Your task to perform on an android device: turn on wifi Image 0: 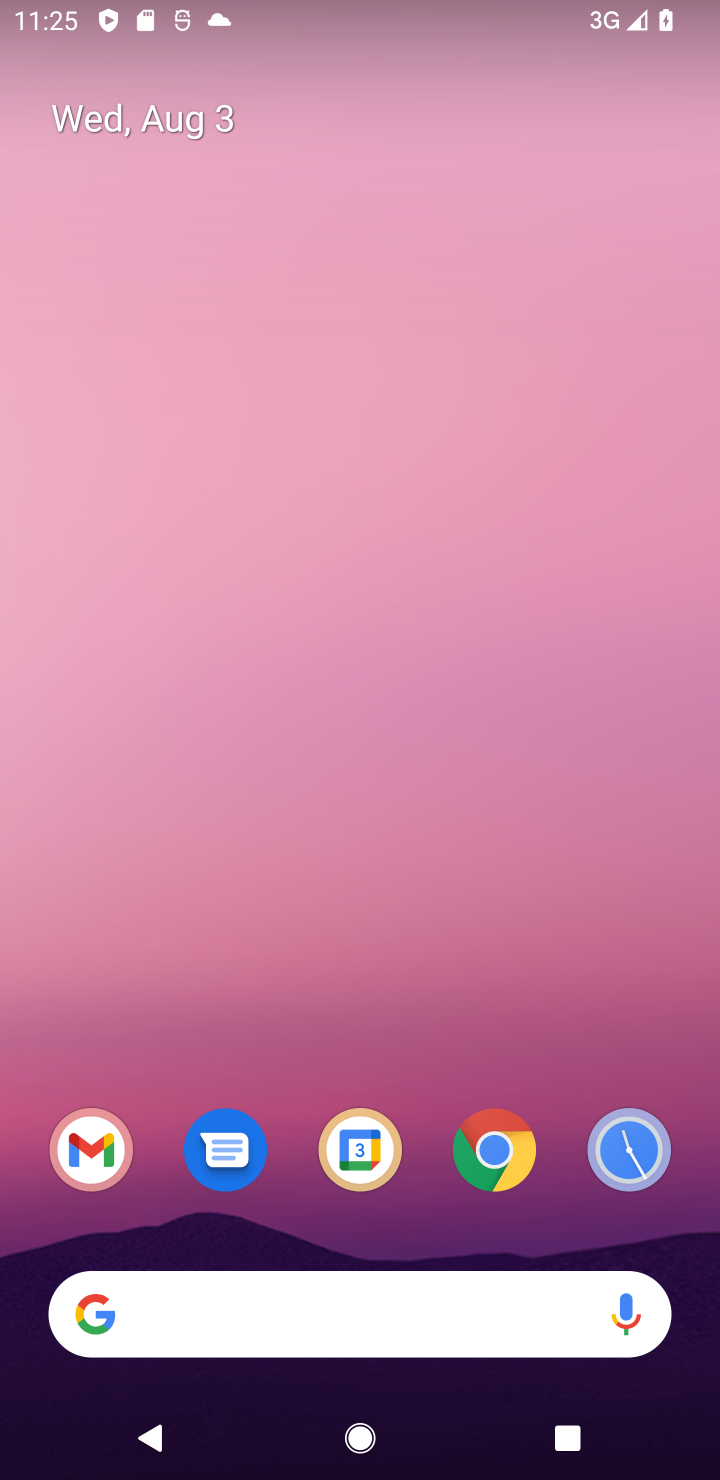
Step 0: press home button
Your task to perform on an android device: turn on wifi Image 1: 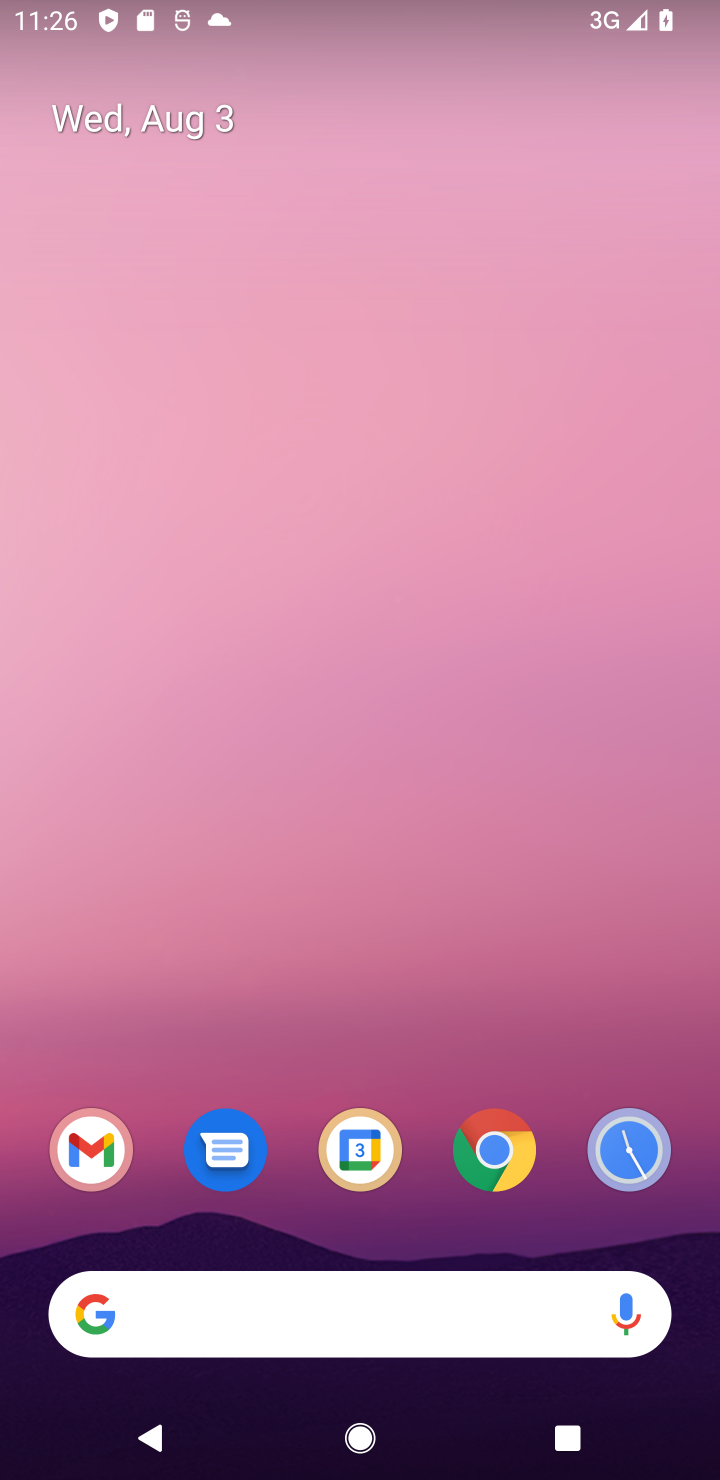
Step 1: drag from (550, 1101) to (563, 235)
Your task to perform on an android device: turn on wifi Image 2: 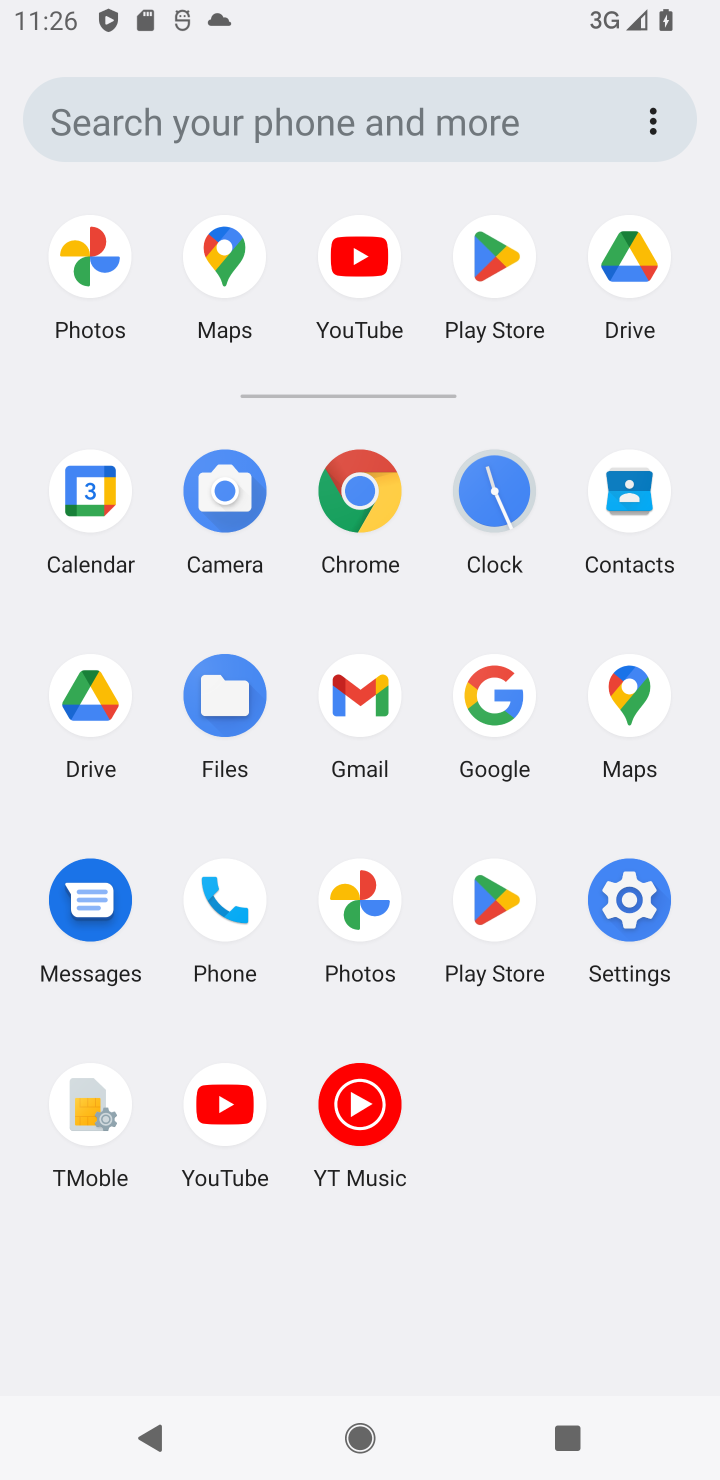
Step 2: click (631, 897)
Your task to perform on an android device: turn on wifi Image 3: 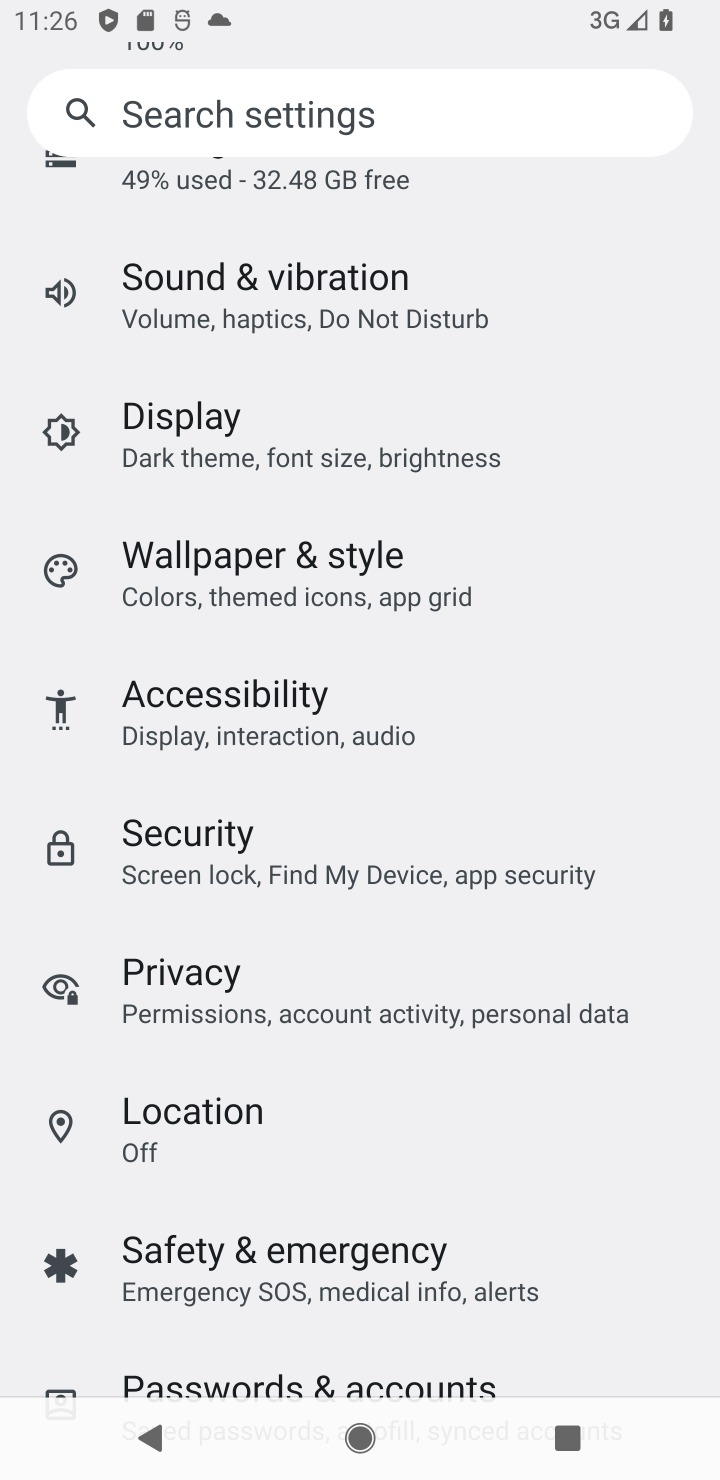
Step 3: drag from (498, 1175) to (523, 844)
Your task to perform on an android device: turn on wifi Image 4: 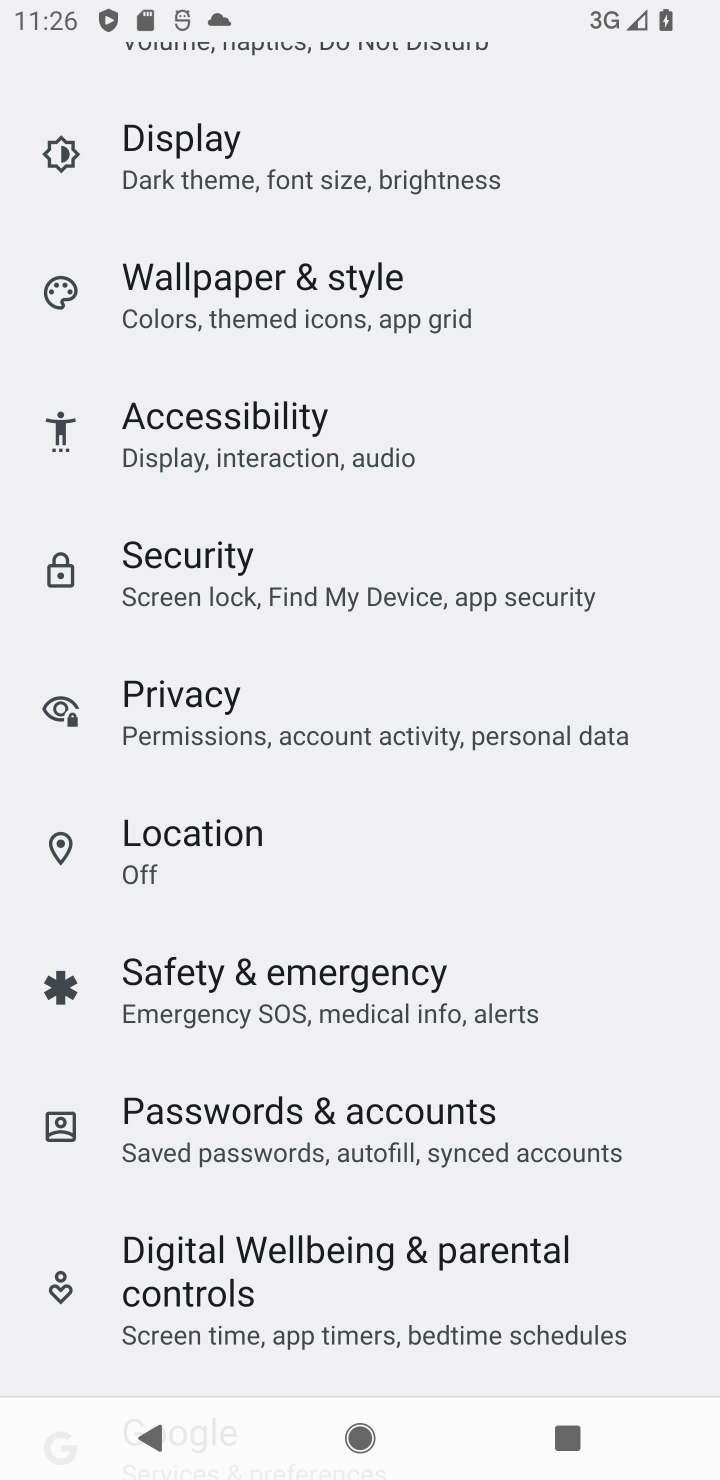
Step 4: drag from (594, 1177) to (603, 784)
Your task to perform on an android device: turn on wifi Image 5: 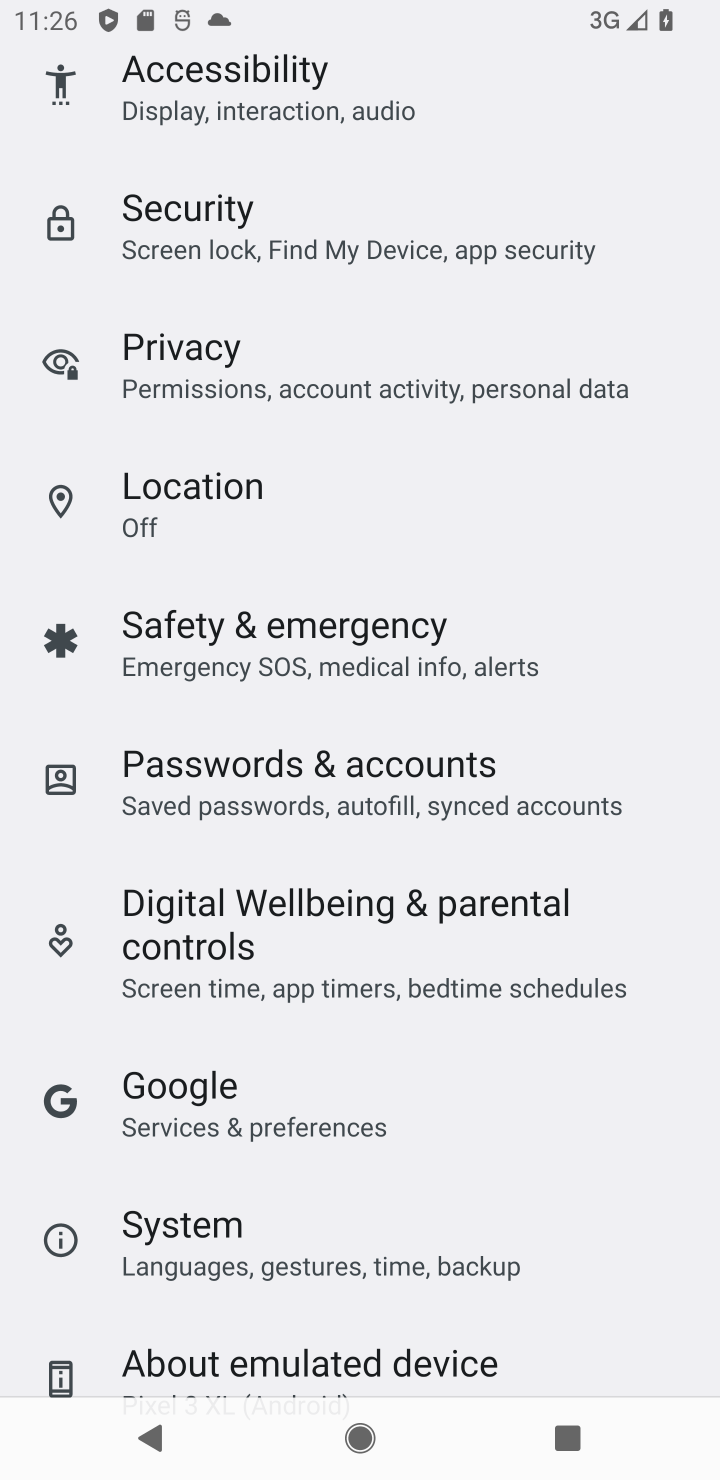
Step 5: drag from (634, 1117) to (615, 825)
Your task to perform on an android device: turn on wifi Image 6: 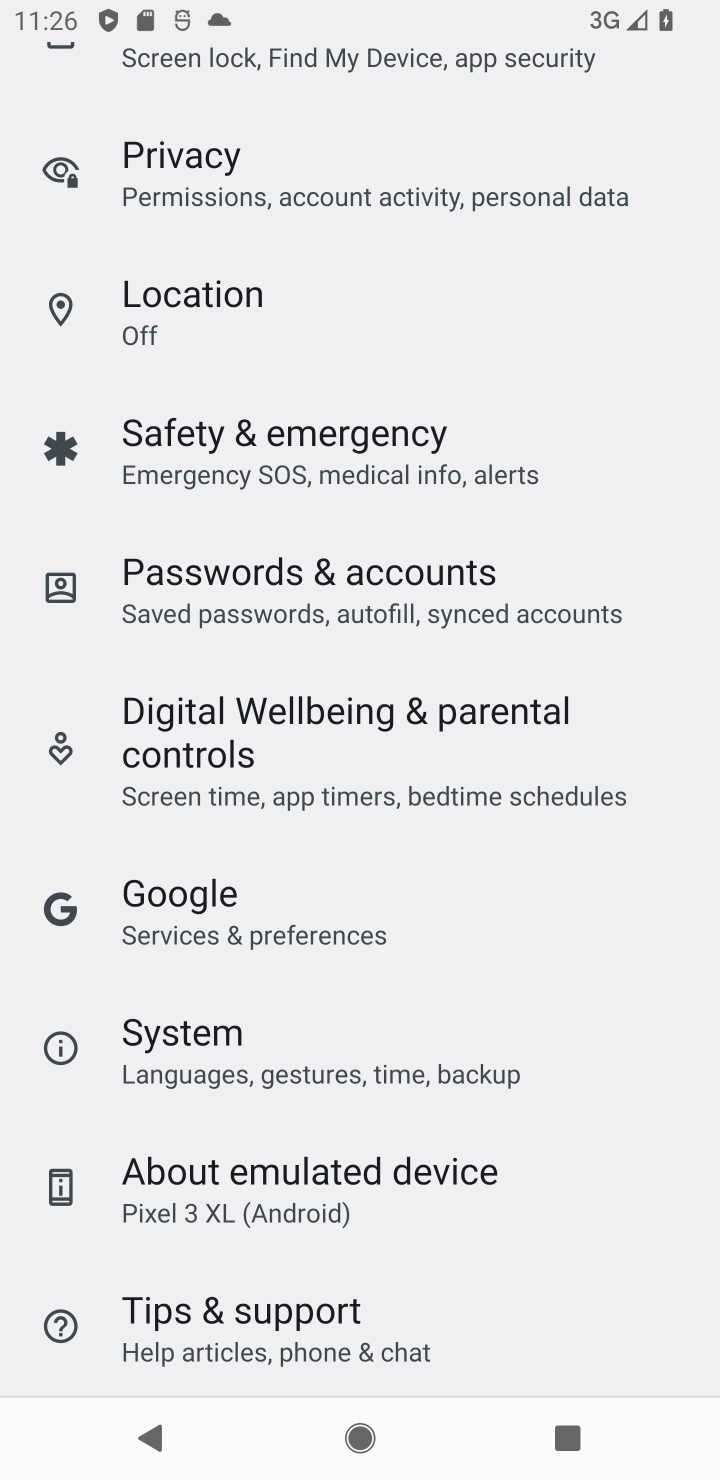
Step 6: drag from (657, 545) to (659, 879)
Your task to perform on an android device: turn on wifi Image 7: 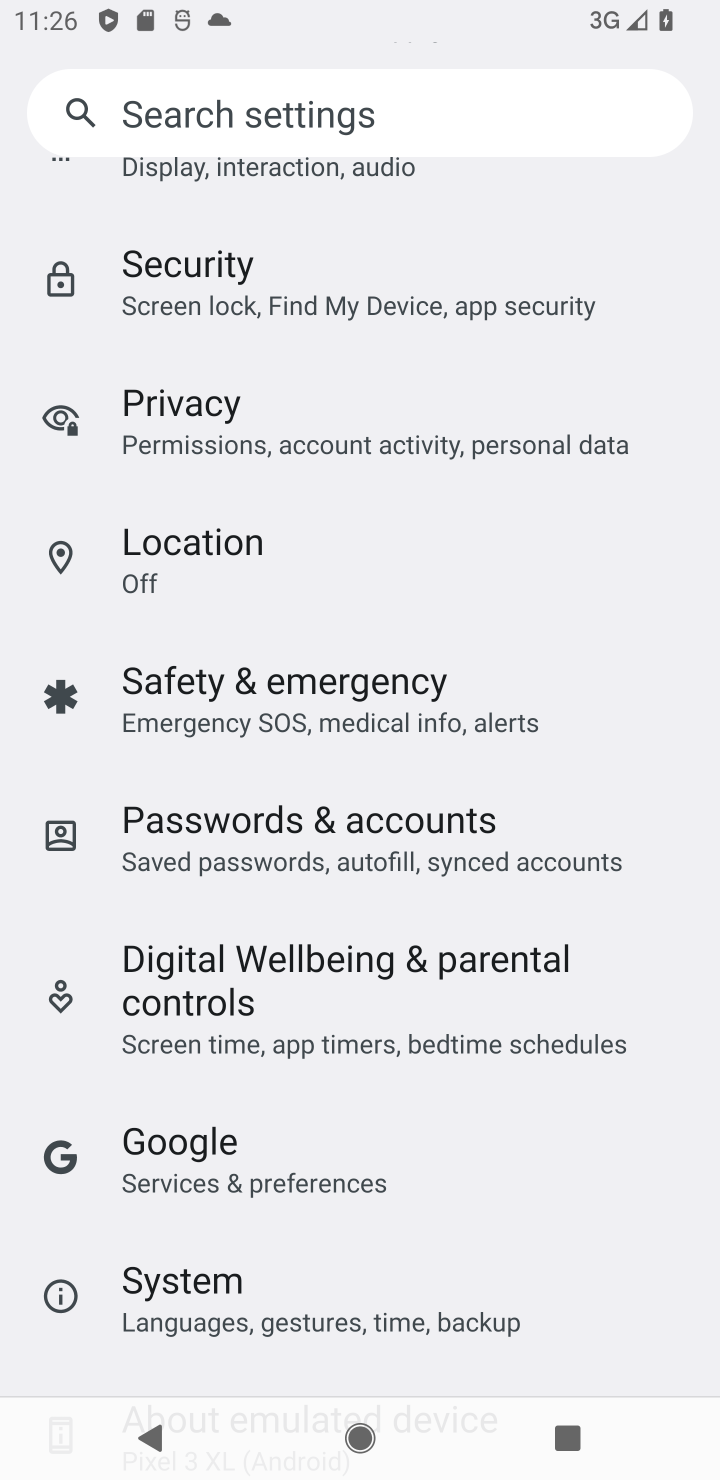
Step 7: drag from (640, 532) to (640, 868)
Your task to perform on an android device: turn on wifi Image 8: 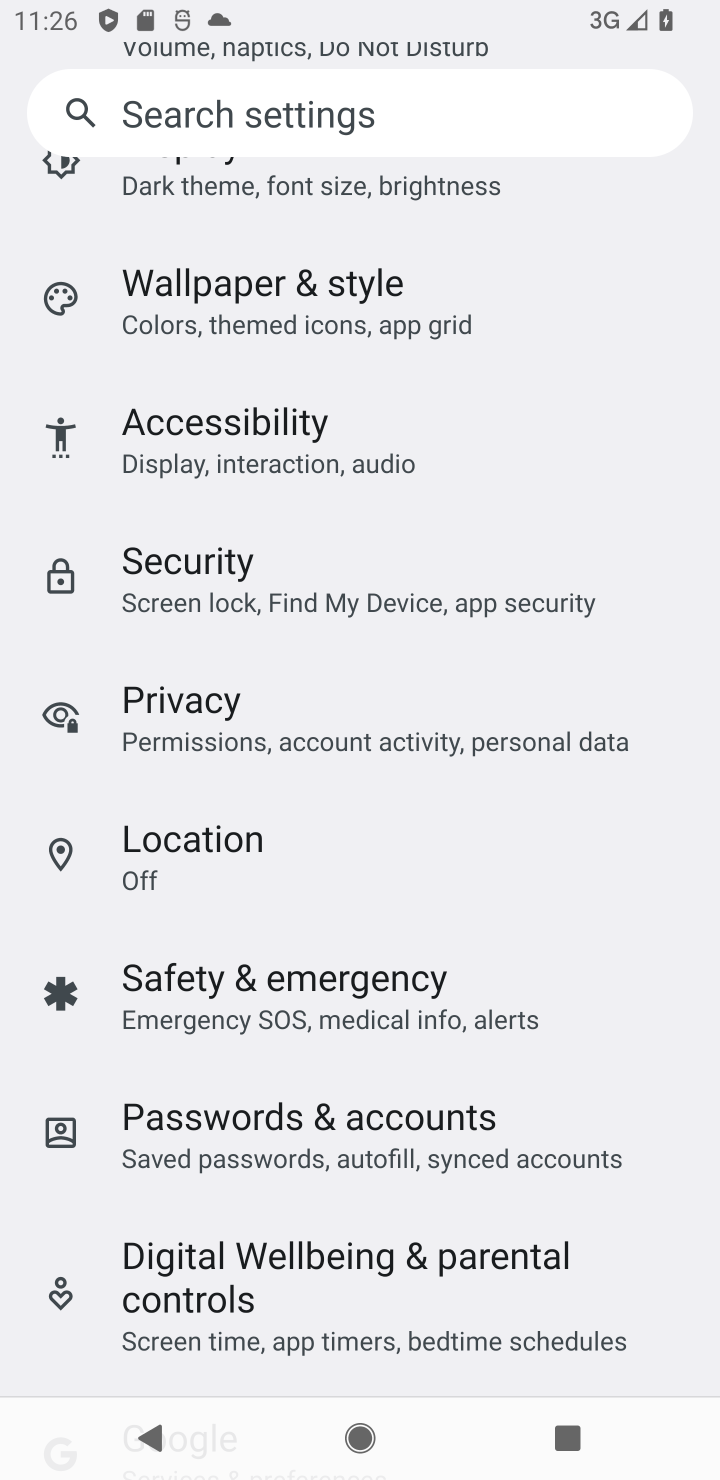
Step 8: drag from (646, 485) to (648, 878)
Your task to perform on an android device: turn on wifi Image 9: 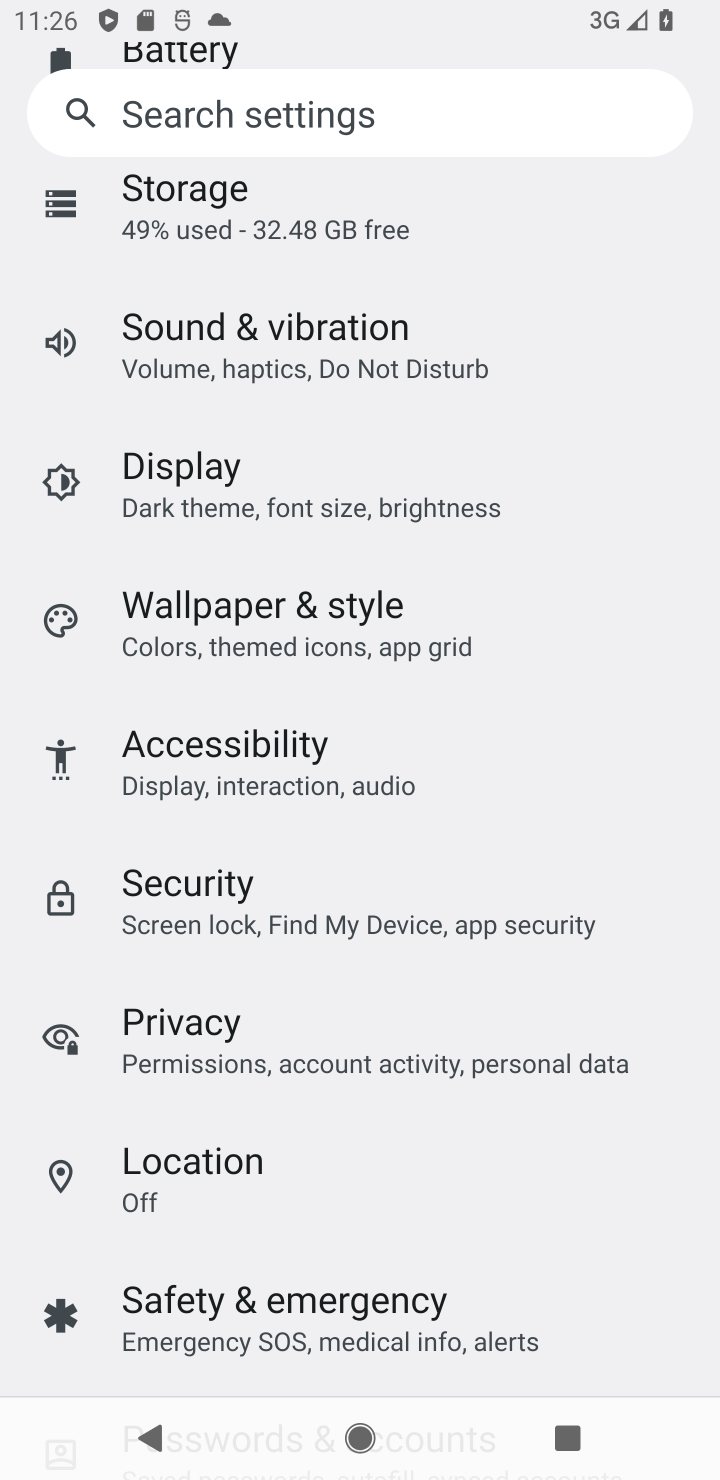
Step 9: drag from (632, 354) to (632, 780)
Your task to perform on an android device: turn on wifi Image 10: 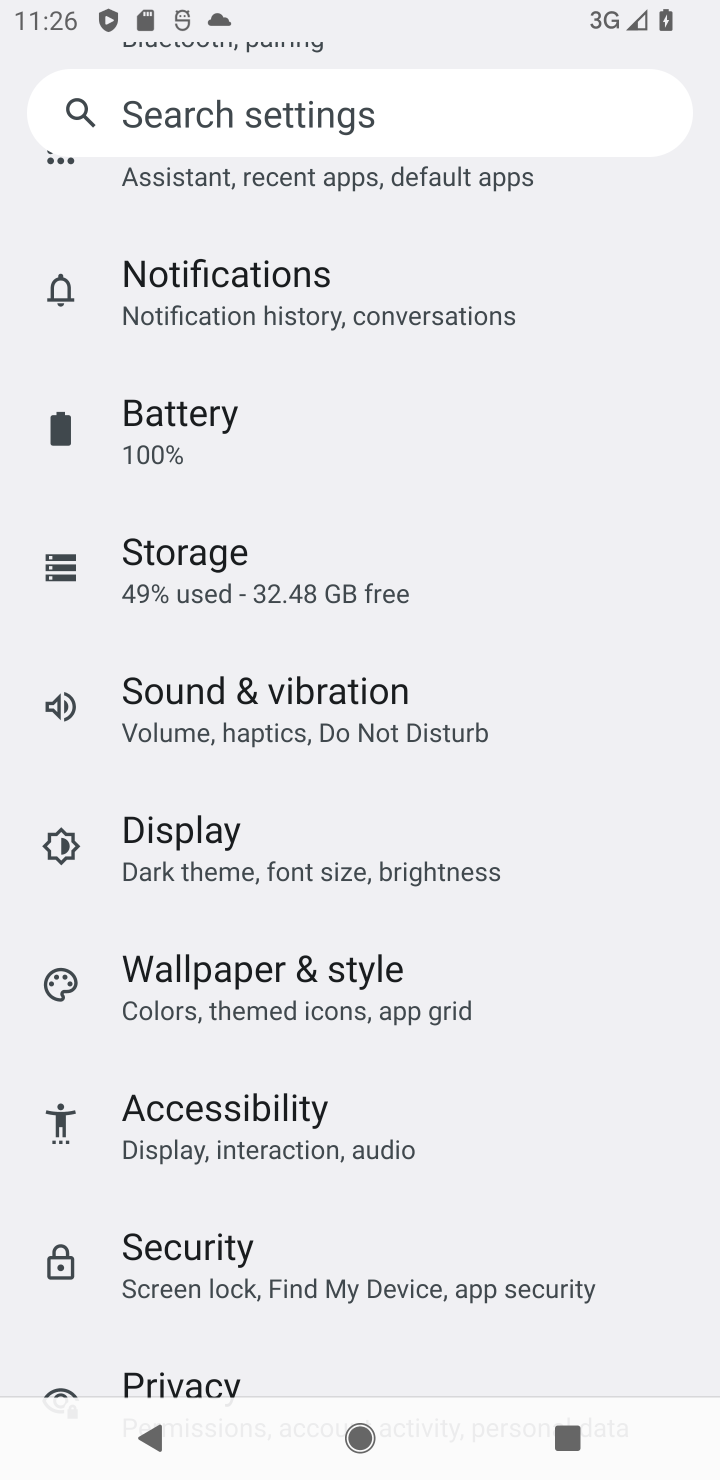
Step 10: drag from (590, 338) to (595, 801)
Your task to perform on an android device: turn on wifi Image 11: 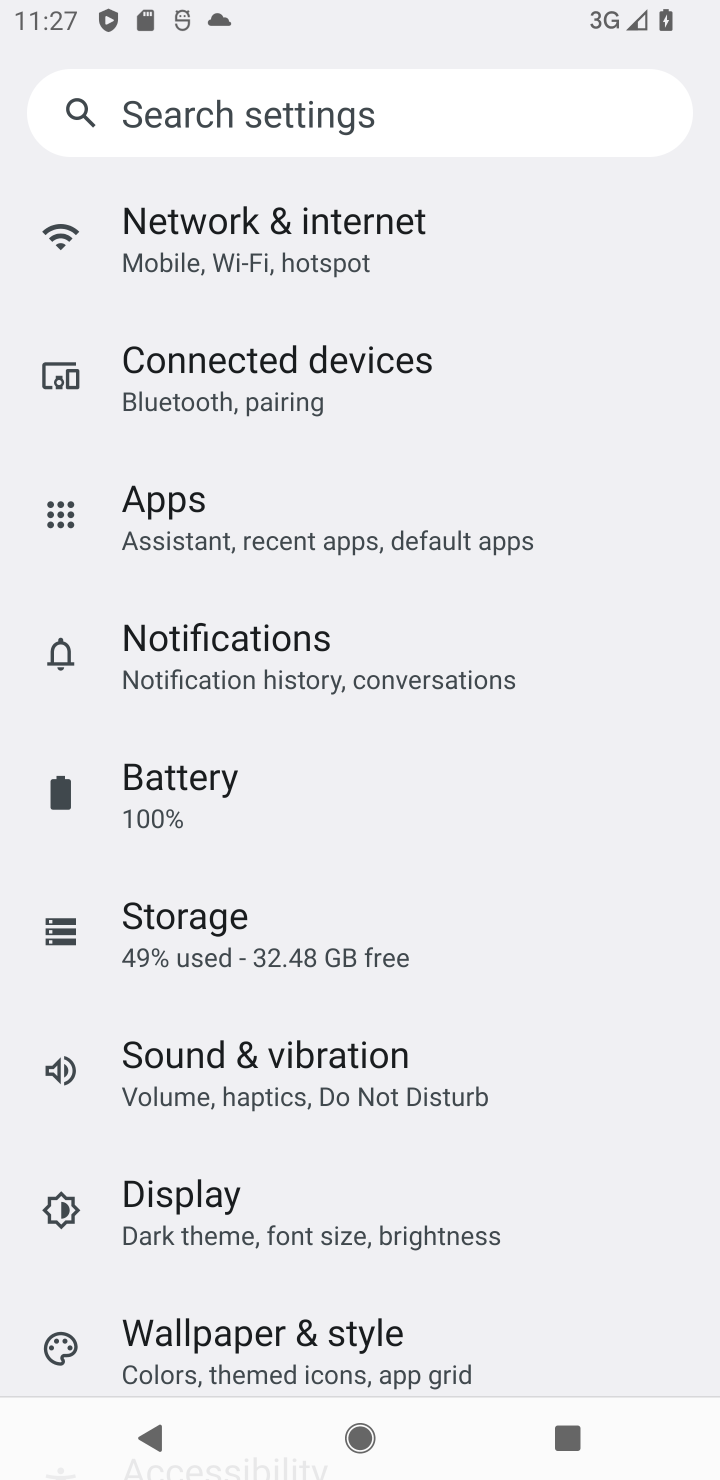
Step 11: click (355, 262)
Your task to perform on an android device: turn on wifi Image 12: 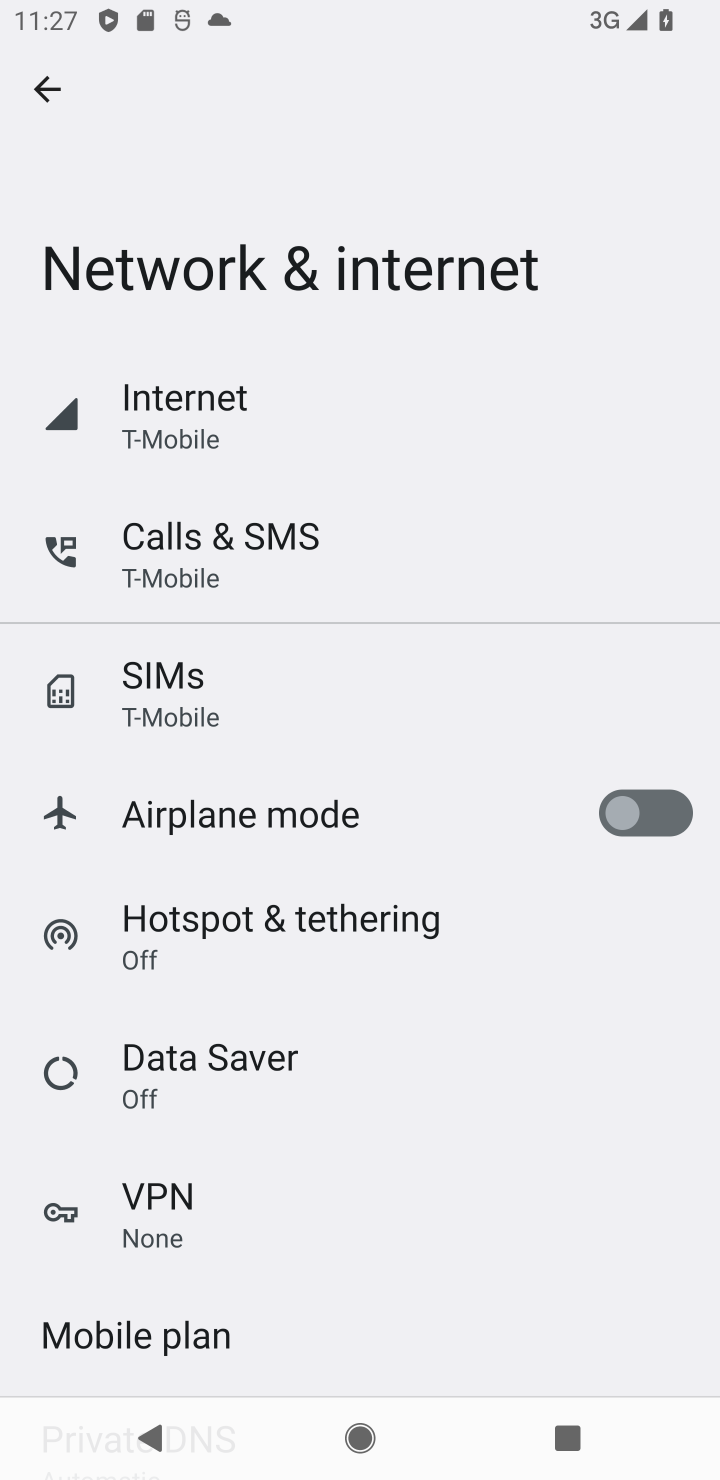
Step 12: click (242, 415)
Your task to perform on an android device: turn on wifi Image 13: 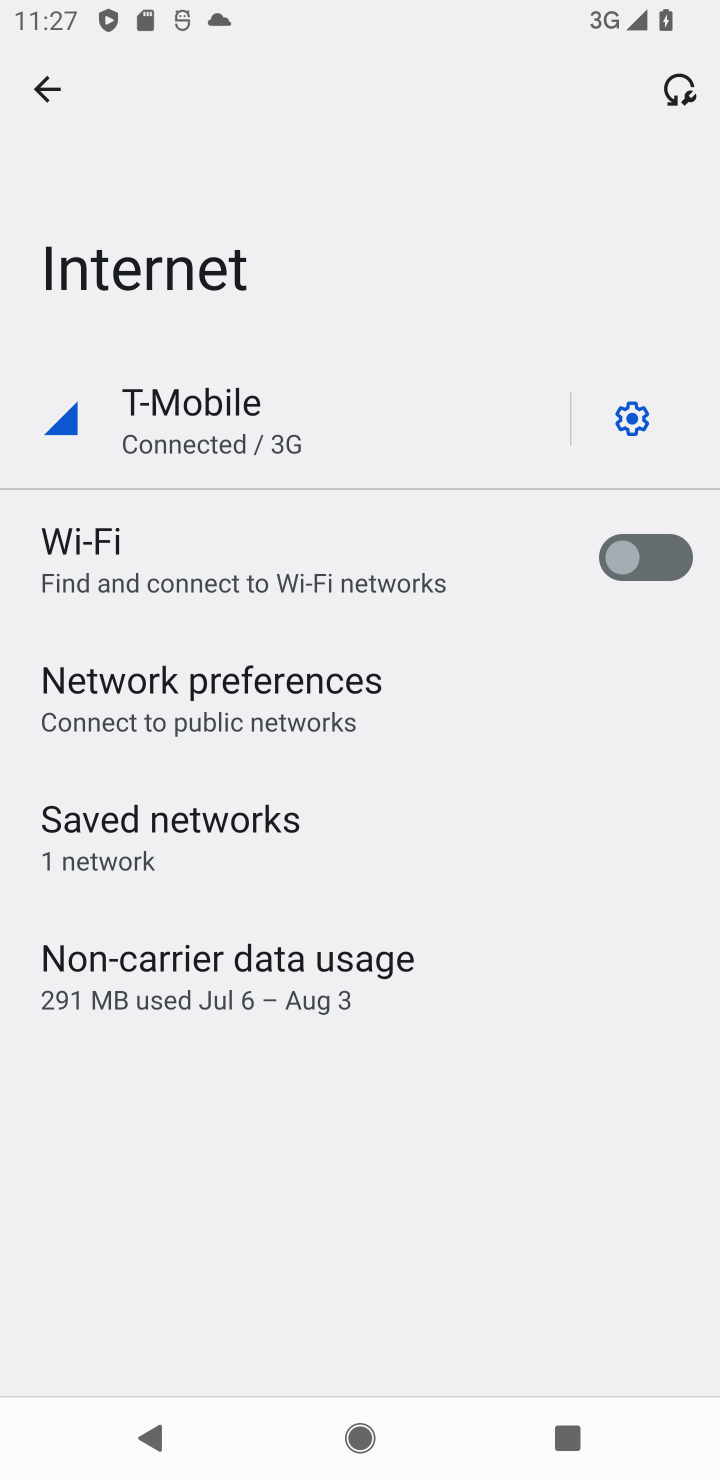
Step 13: click (635, 559)
Your task to perform on an android device: turn on wifi Image 14: 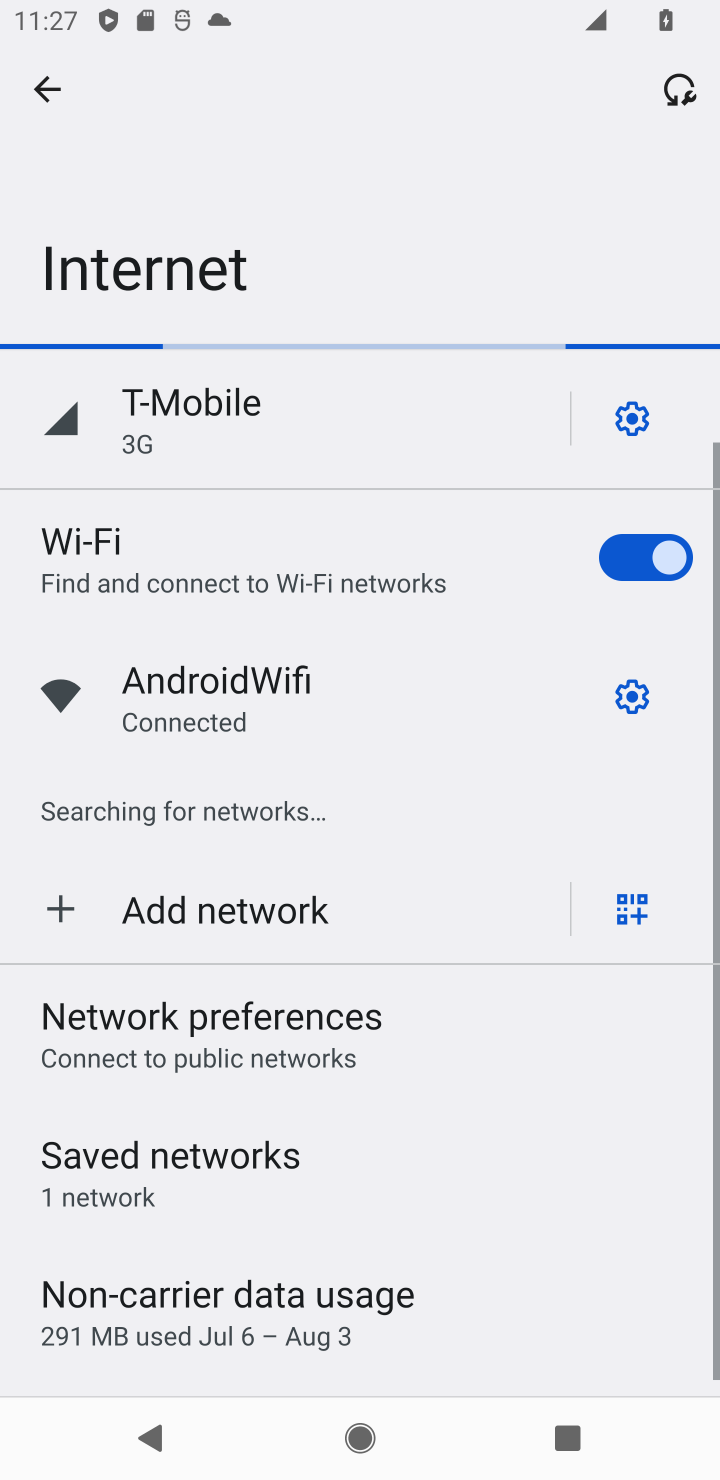
Step 14: task complete